Your task to perform on an android device: Show me popular games on the Play Store Image 0: 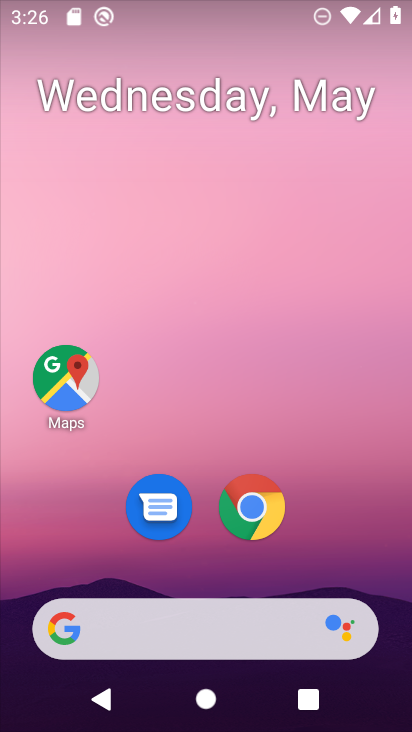
Step 0: drag from (194, 568) to (206, 129)
Your task to perform on an android device: Show me popular games on the Play Store Image 1: 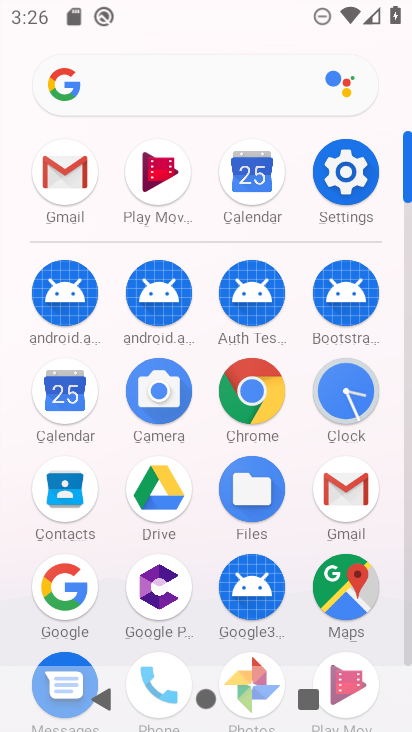
Step 1: drag from (200, 519) to (218, 317)
Your task to perform on an android device: Show me popular games on the Play Store Image 2: 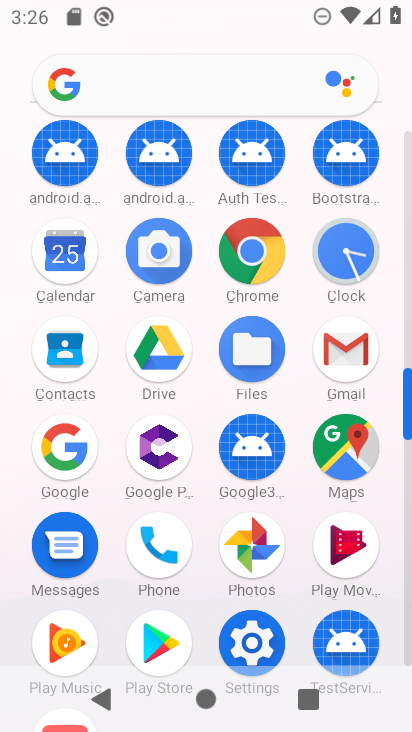
Step 2: click (147, 629)
Your task to perform on an android device: Show me popular games on the Play Store Image 3: 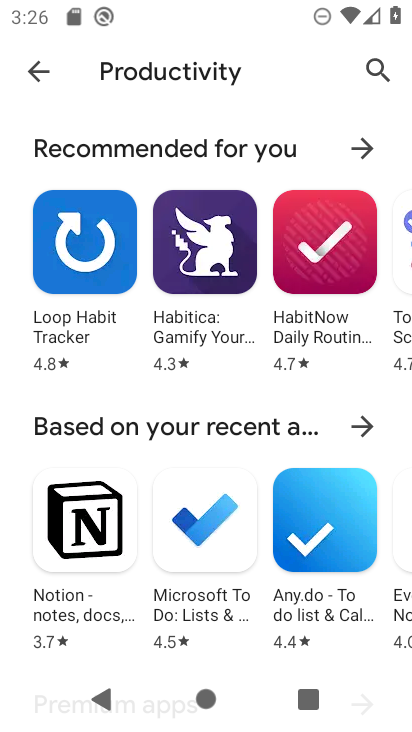
Step 3: click (33, 73)
Your task to perform on an android device: Show me popular games on the Play Store Image 4: 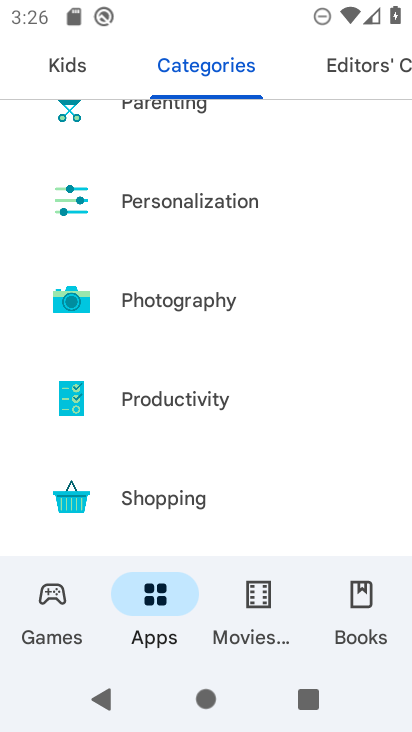
Step 4: click (61, 601)
Your task to perform on an android device: Show me popular games on the Play Store Image 5: 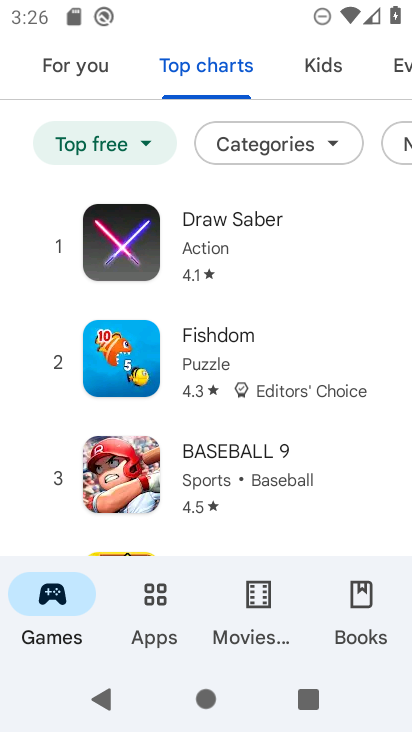
Step 5: task complete